Your task to perform on an android device: Is it going to rain today? Image 0: 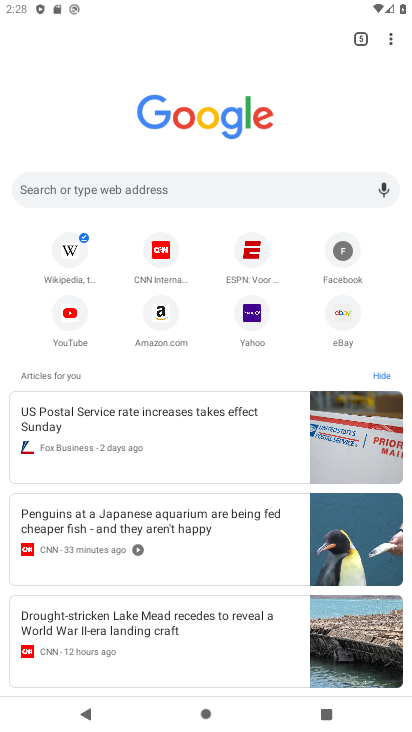
Step 0: press home button
Your task to perform on an android device: Is it going to rain today? Image 1: 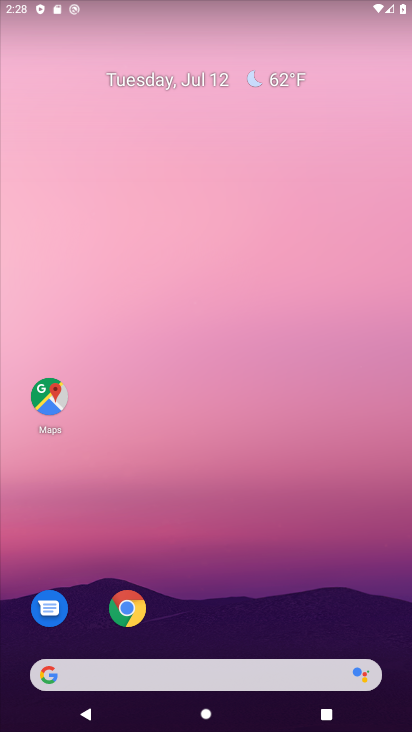
Step 1: click (187, 677)
Your task to perform on an android device: Is it going to rain today? Image 2: 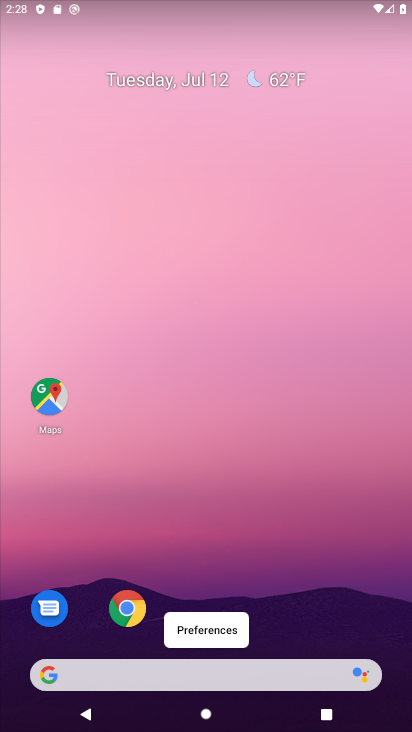
Step 2: click (182, 678)
Your task to perform on an android device: Is it going to rain today? Image 3: 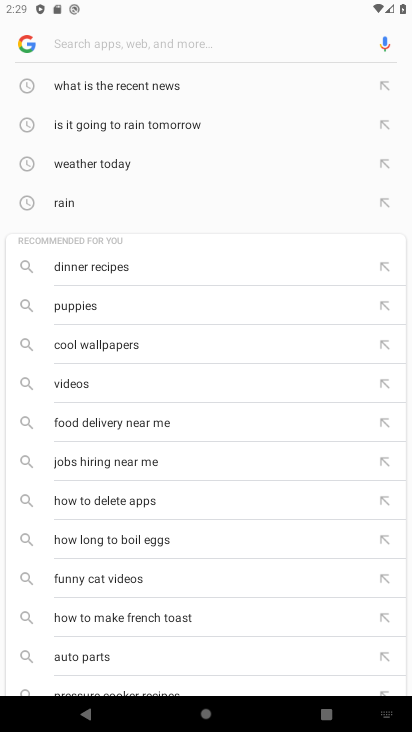
Step 3: type "Is it going to rain today"
Your task to perform on an android device: Is it going to rain today? Image 4: 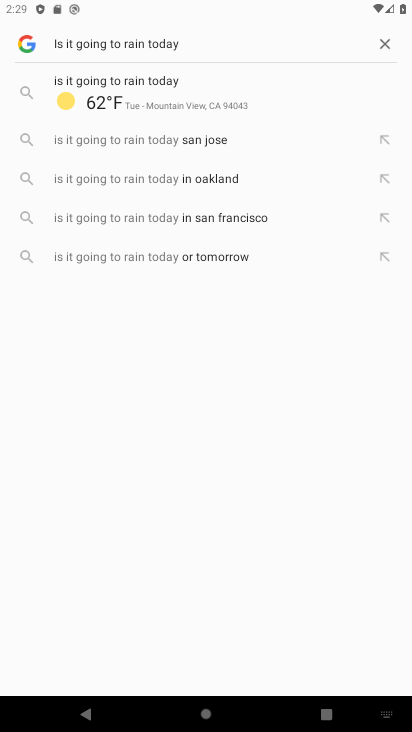
Step 4: click (174, 94)
Your task to perform on an android device: Is it going to rain today? Image 5: 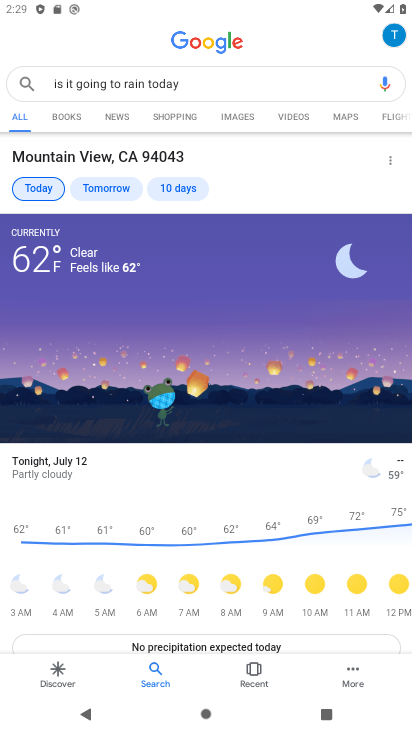
Step 5: task complete